Your task to perform on an android device: Search for pizza restaurants on Maps Image 0: 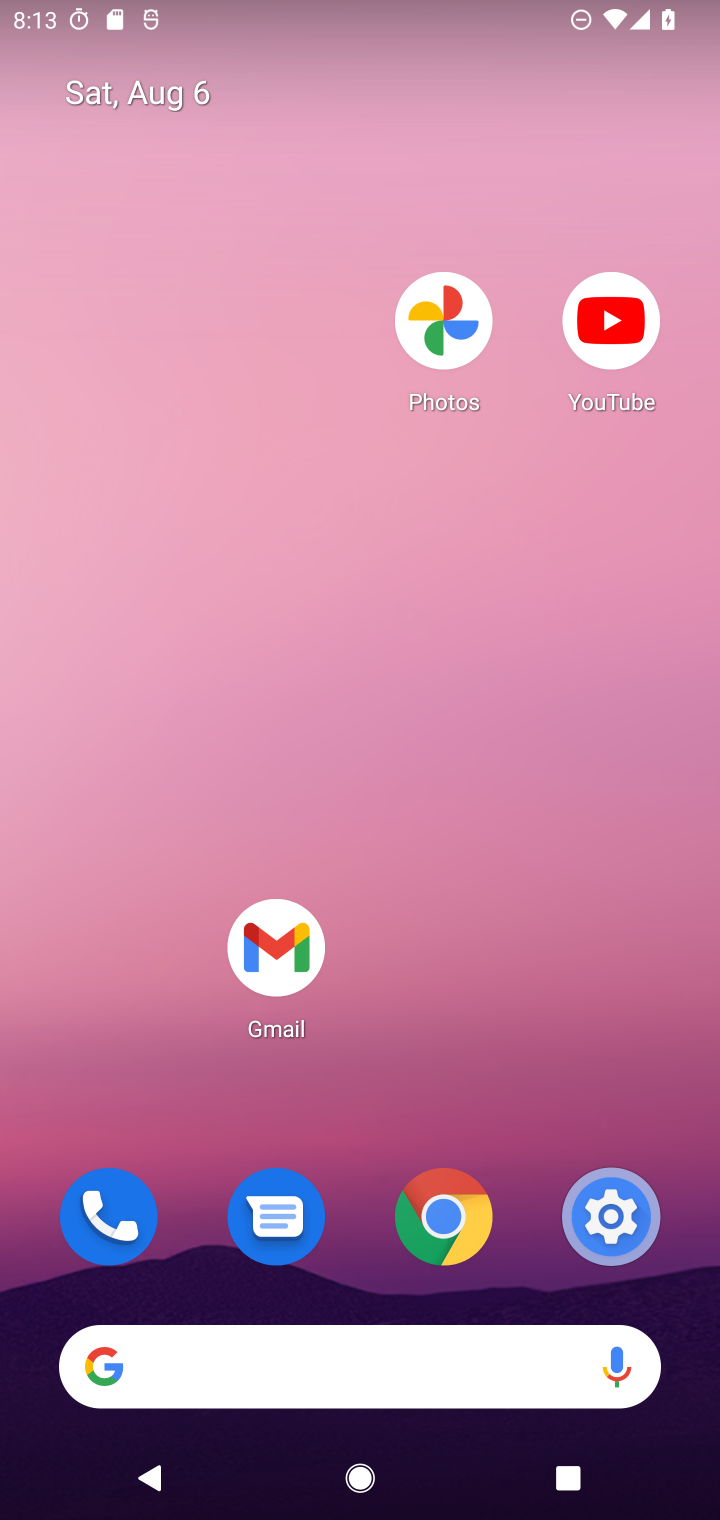
Step 0: drag from (542, 1065) to (251, 124)
Your task to perform on an android device: Search for pizza restaurants on Maps Image 1: 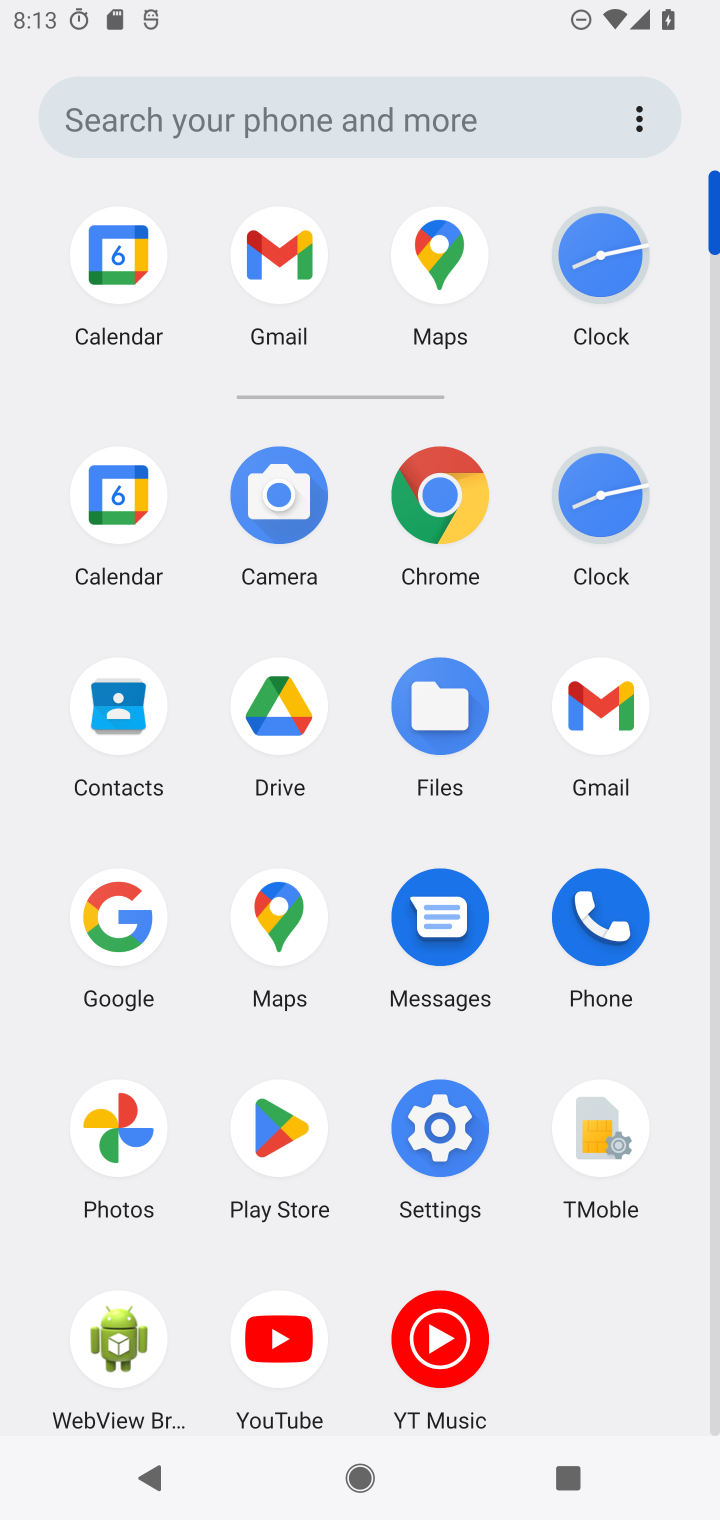
Step 1: click (278, 936)
Your task to perform on an android device: Search for pizza restaurants on Maps Image 2: 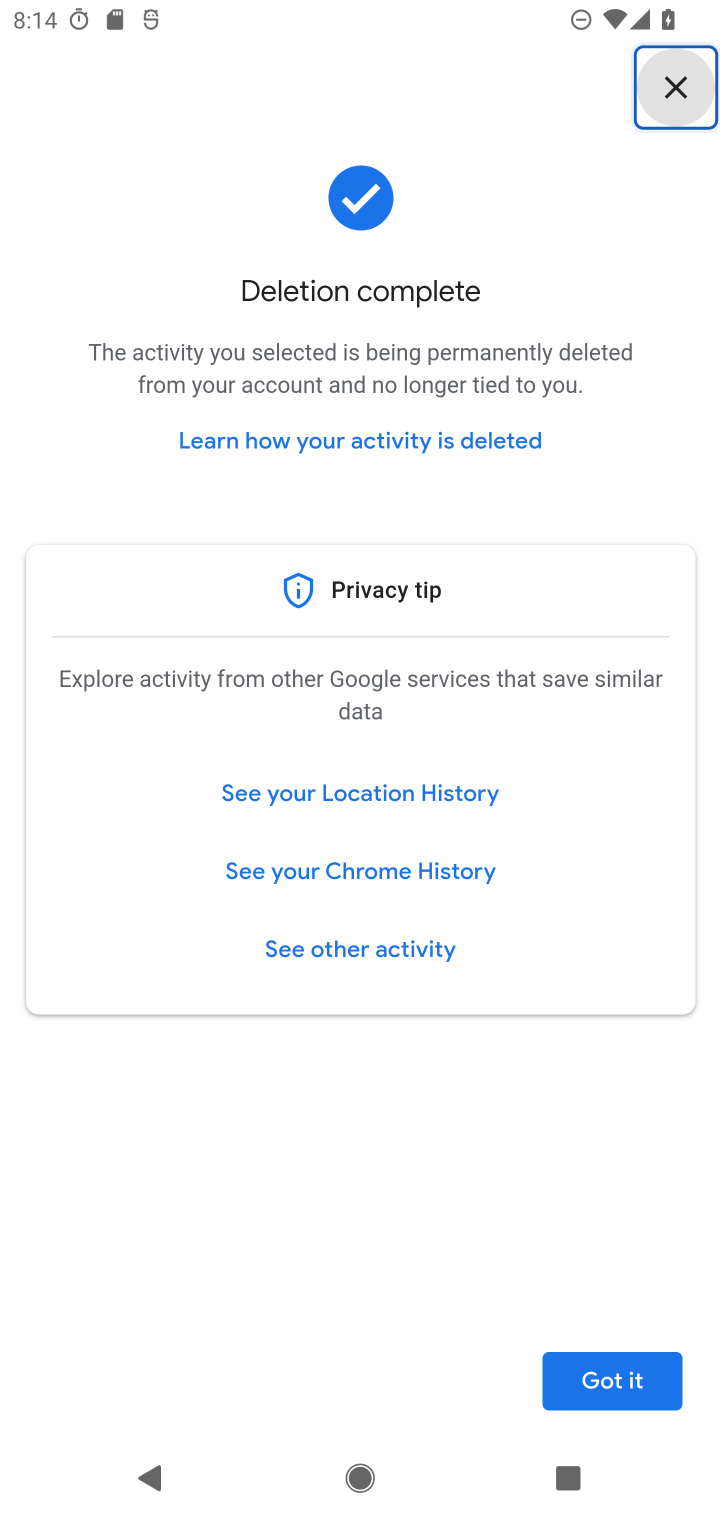
Step 2: drag from (693, 87) to (717, 1166)
Your task to perform on an android device: Search for pizza restaurants on Maps Image 3: 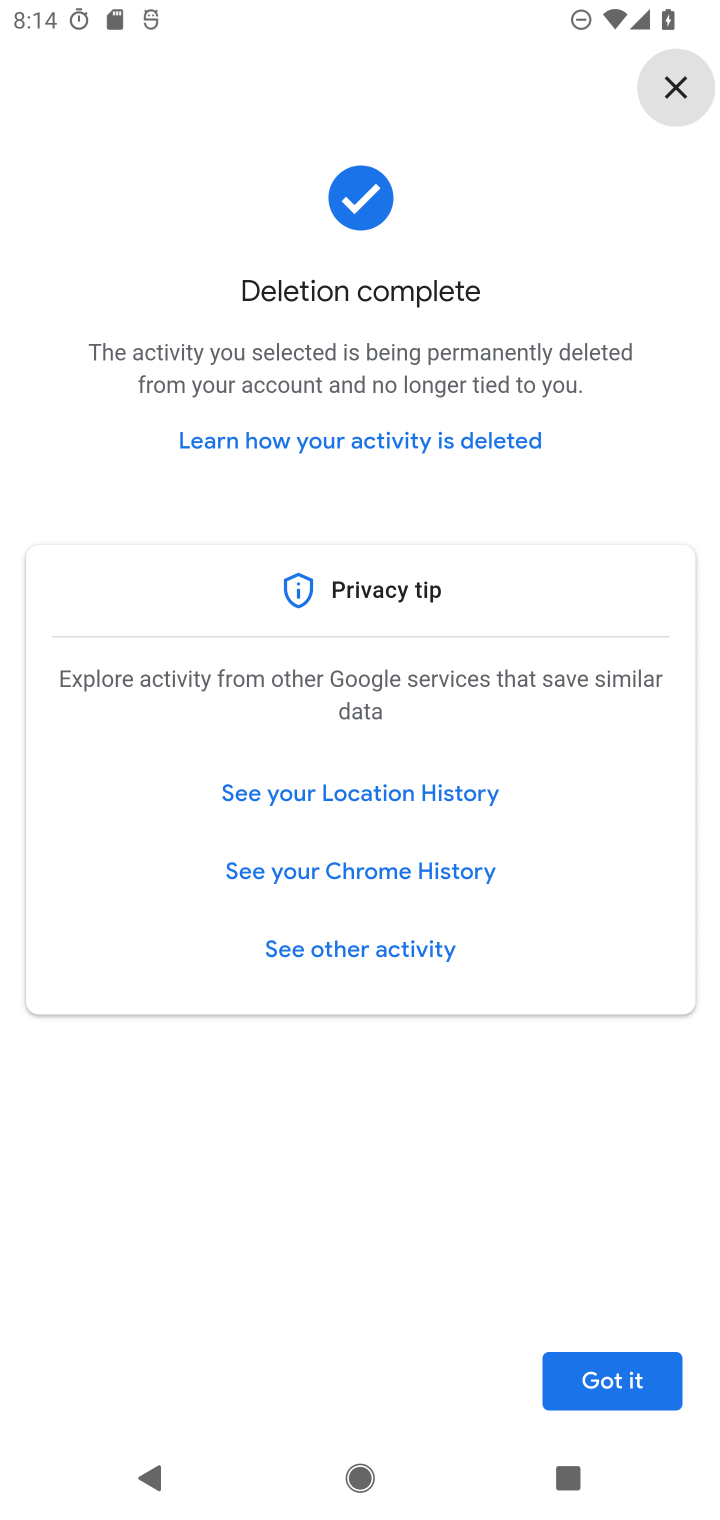
Step 3: click (619, 1406)
Your task to perform on an android device: Search for pizza restaurants on Maps Image 4: 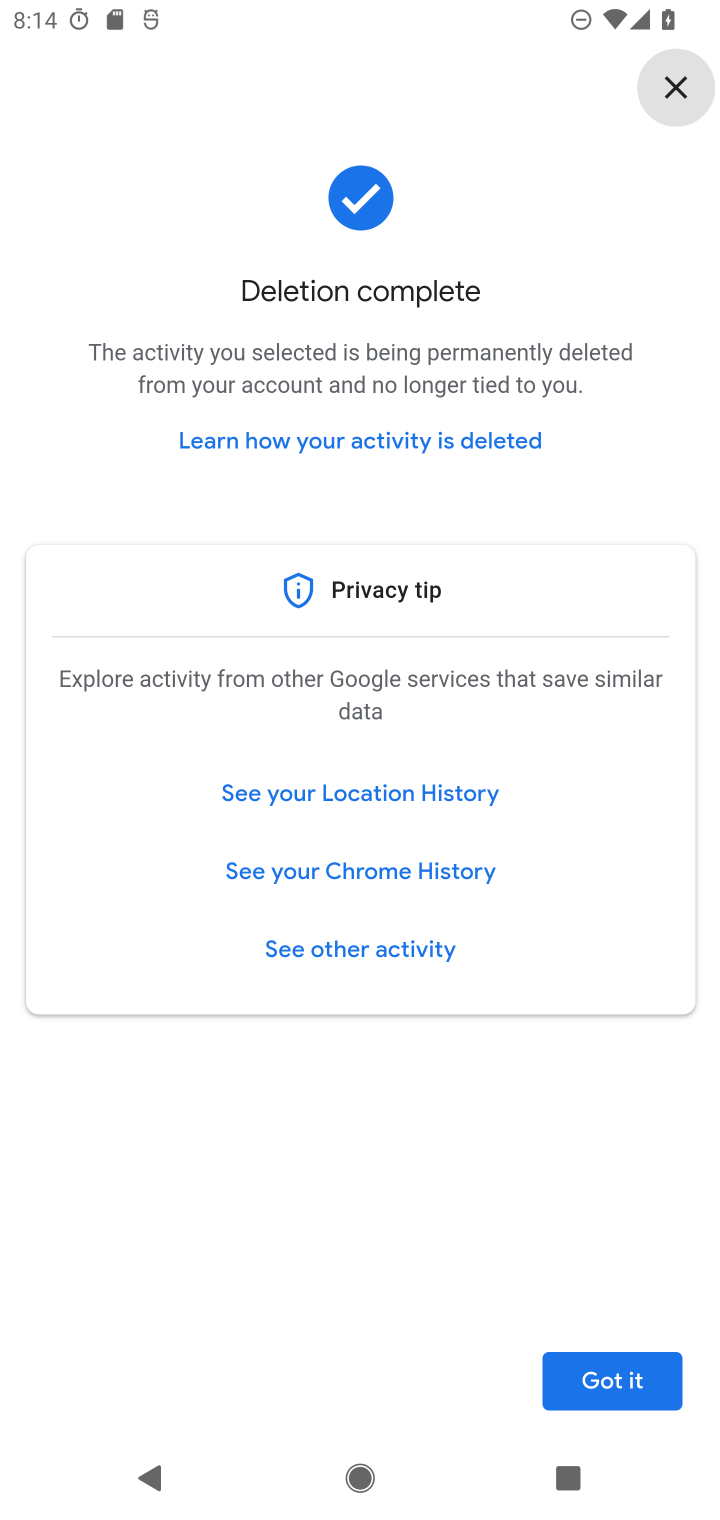
Step 4: click (619, 1396)
Your task to perform on an android device: Search for pizza restaurants on Maps Image 5: 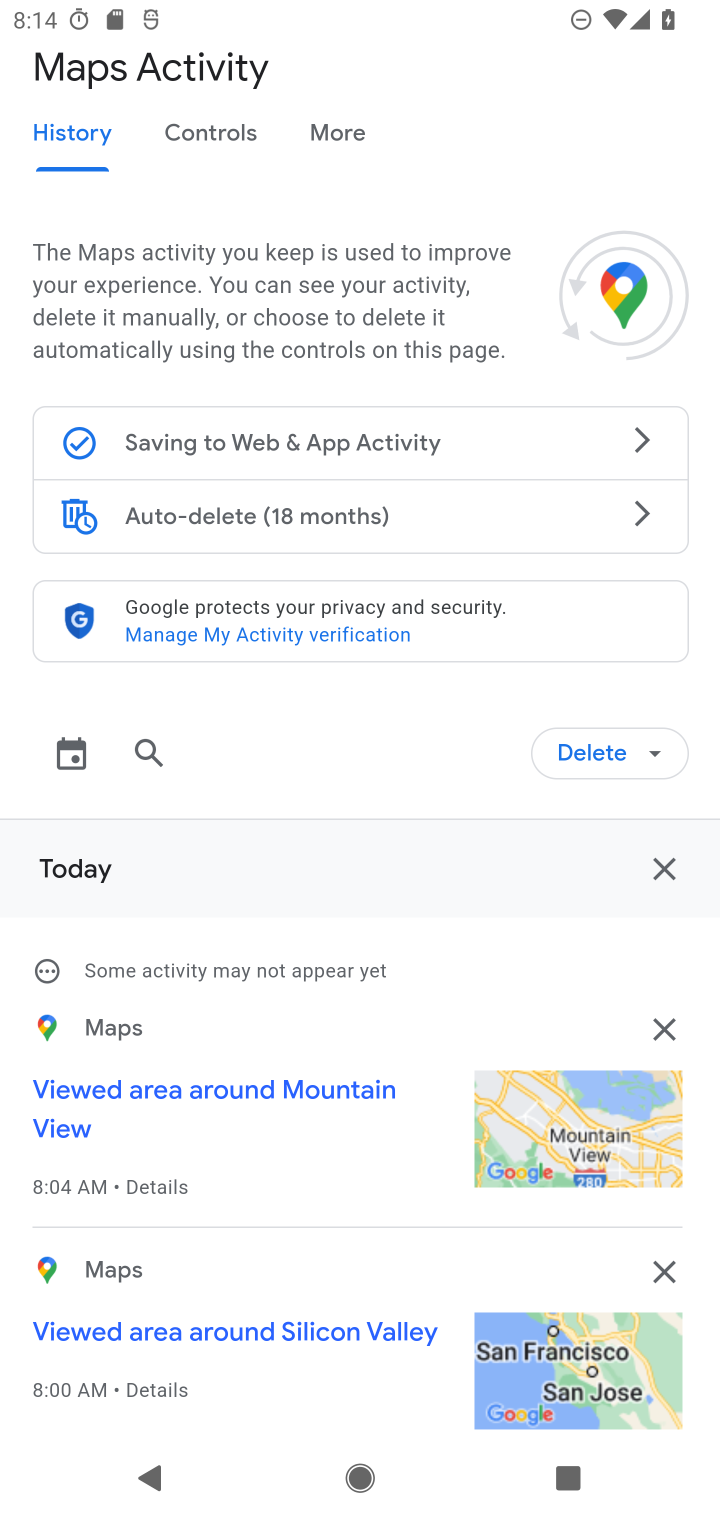
Step 5: press back button
Your task to perform on an android device: Search for pizza restaurants on Maps Image 6: 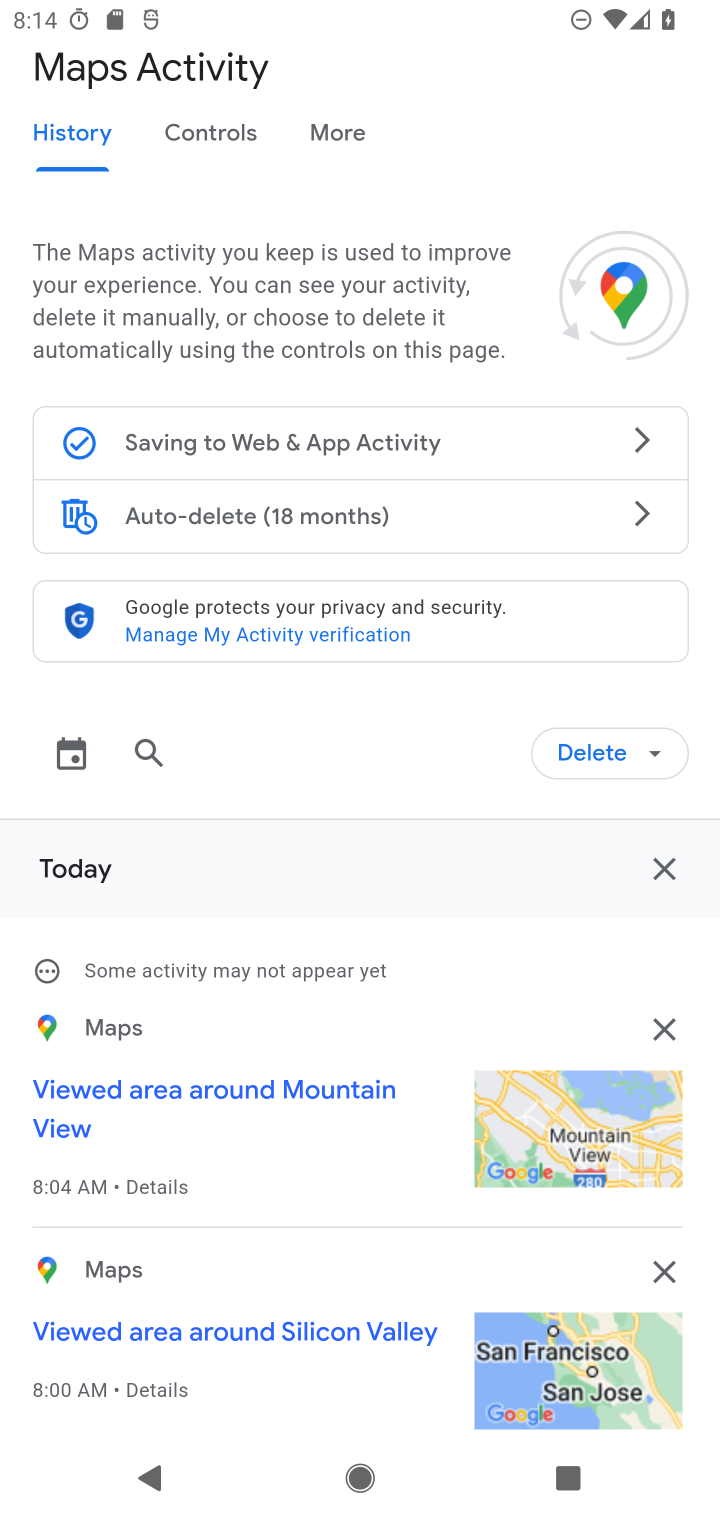
Step 6: press back button
Your task to perform on an android device: Search for pizza restaurants on Maps Image 7: 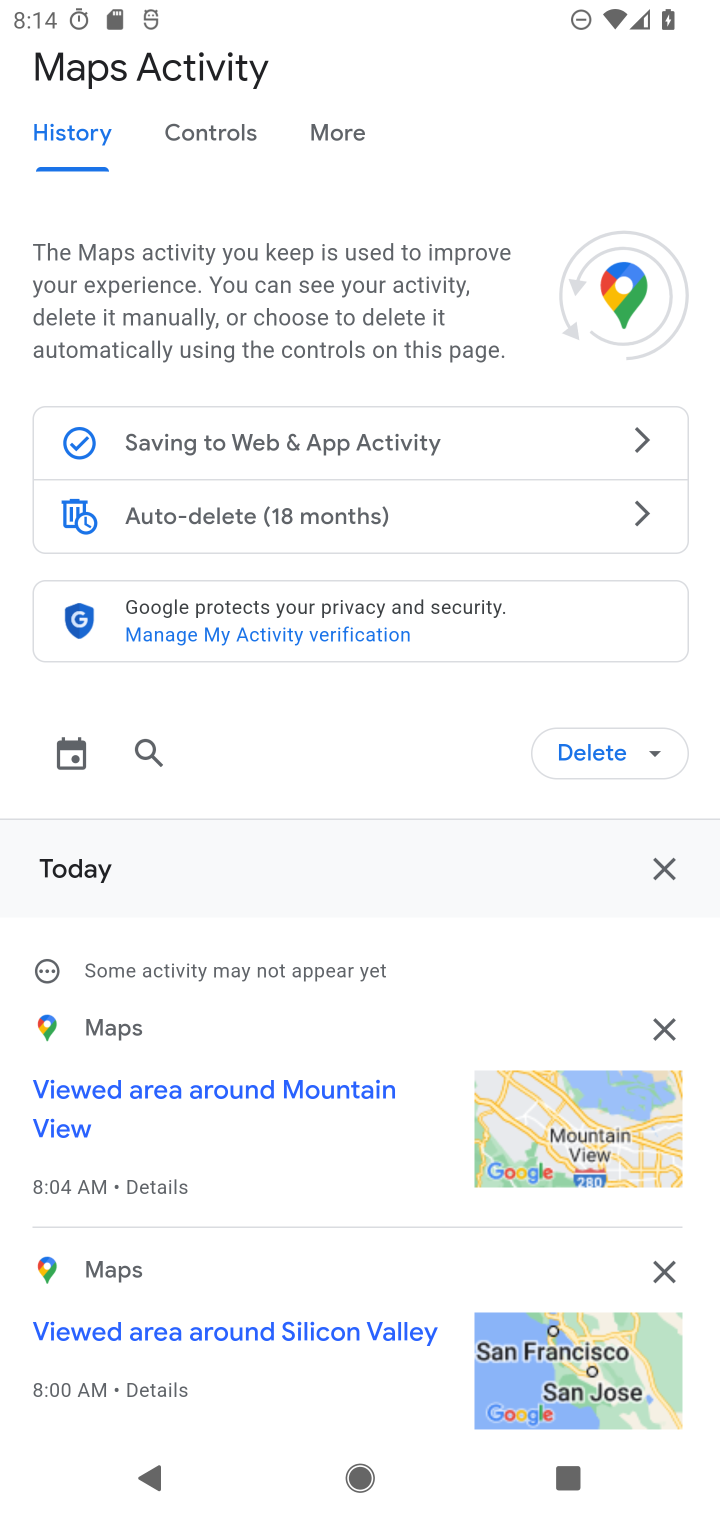
Step 7: press back button
Your task to perform on an android device: Search for pizza restaurants on Maps Image 8: 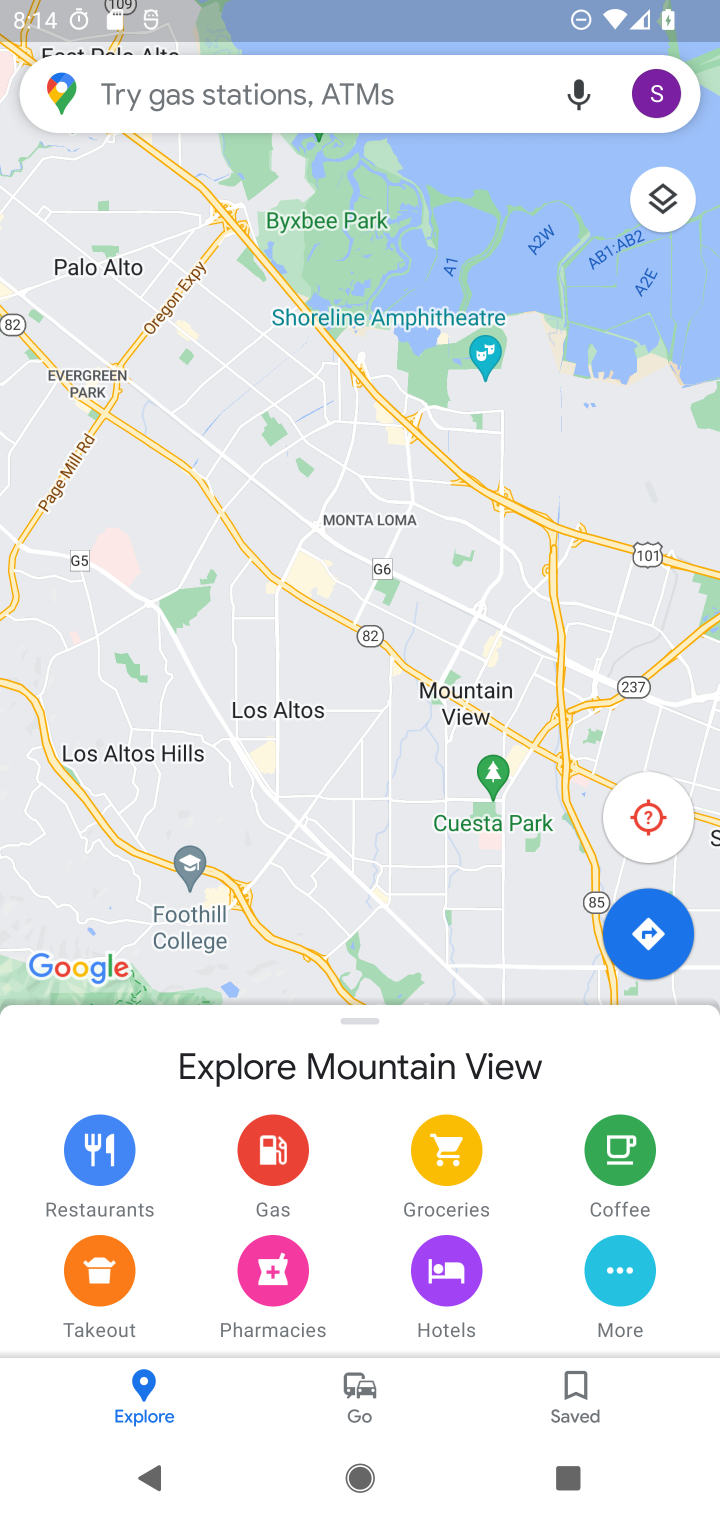
Step 8: click (301, 105)
Your task to perform on an android device: Search for pizza restaurants on Maps Image 9: 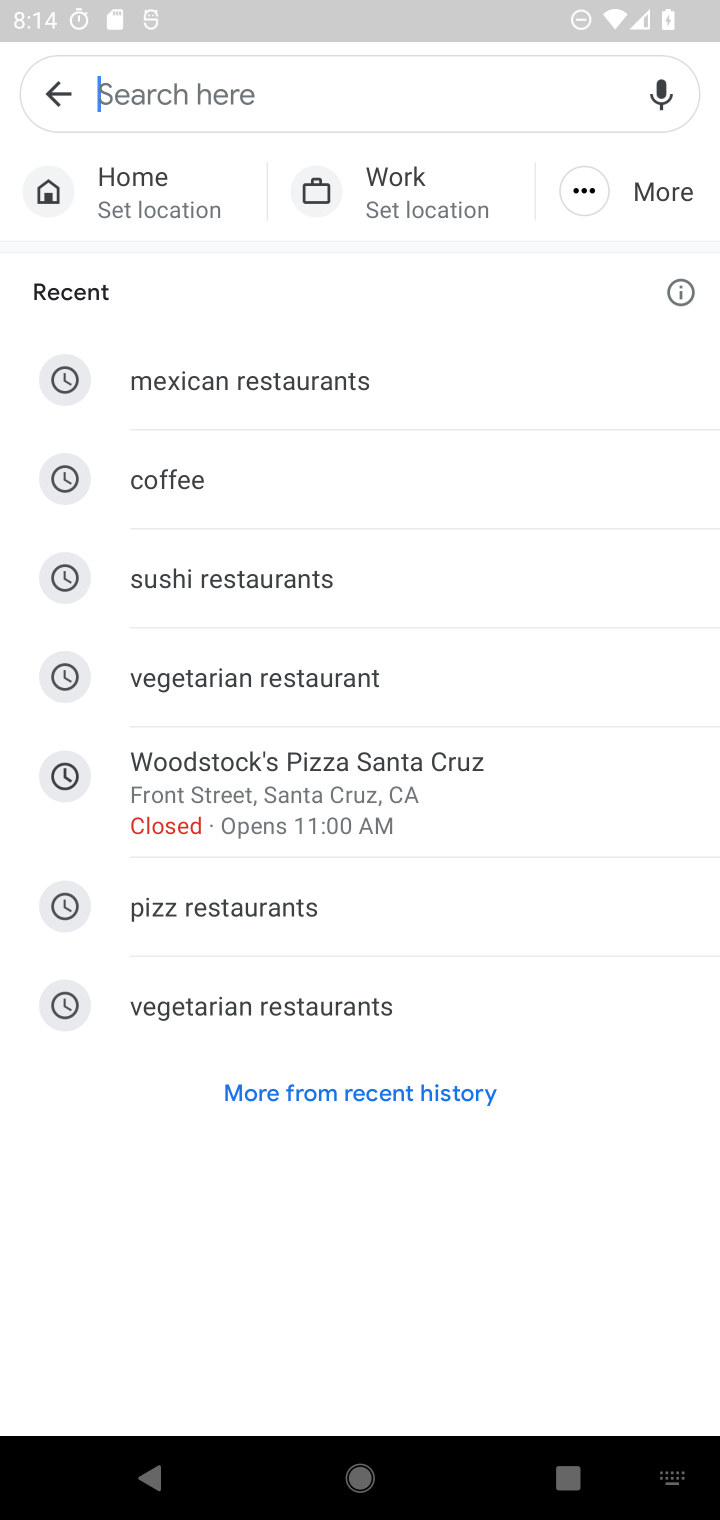
Step 9: type "pizza restaurants"
Your task to perform on an android device: Search for pizza restaurants on Maps Image 10: 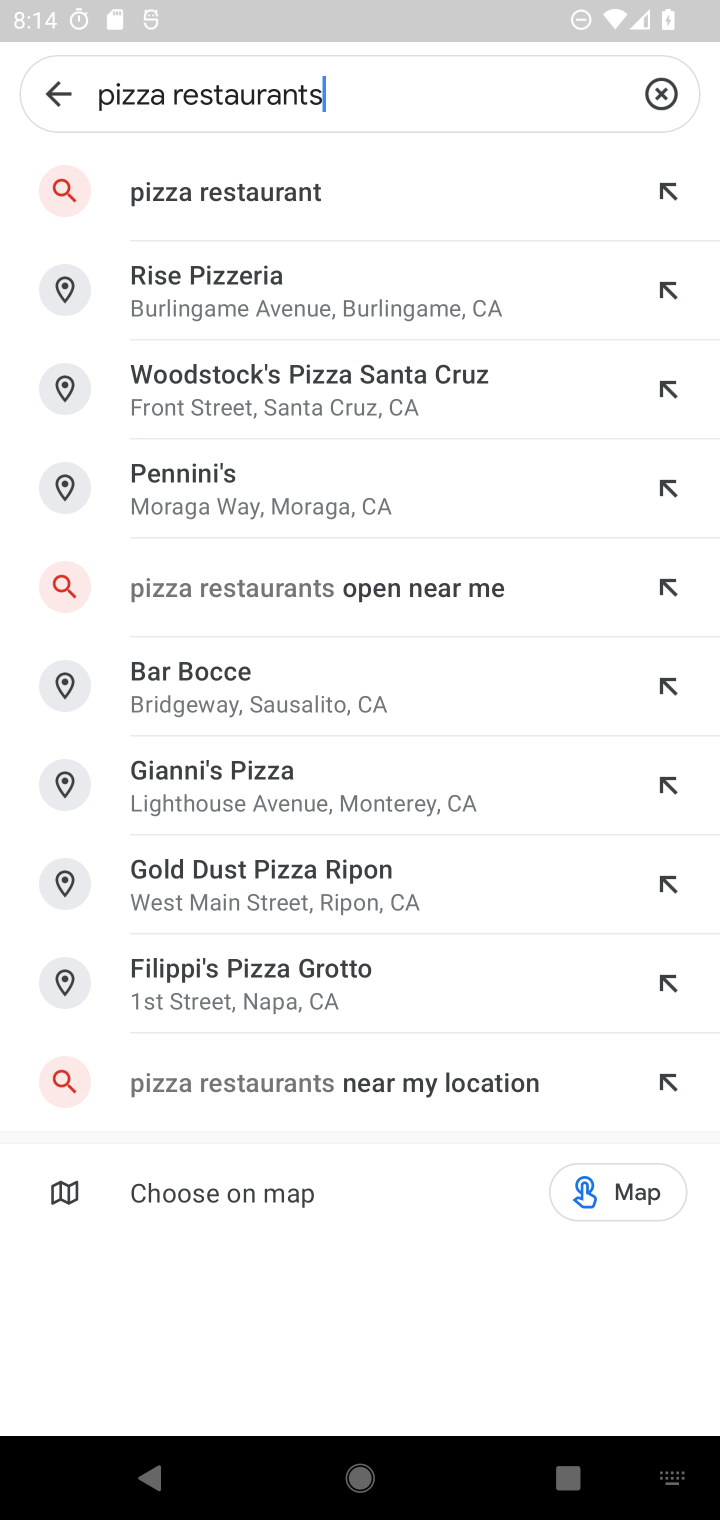
Step 10: press enter
Your task to perform on an android device: Search for pizza restaurants on Maps Image 11: 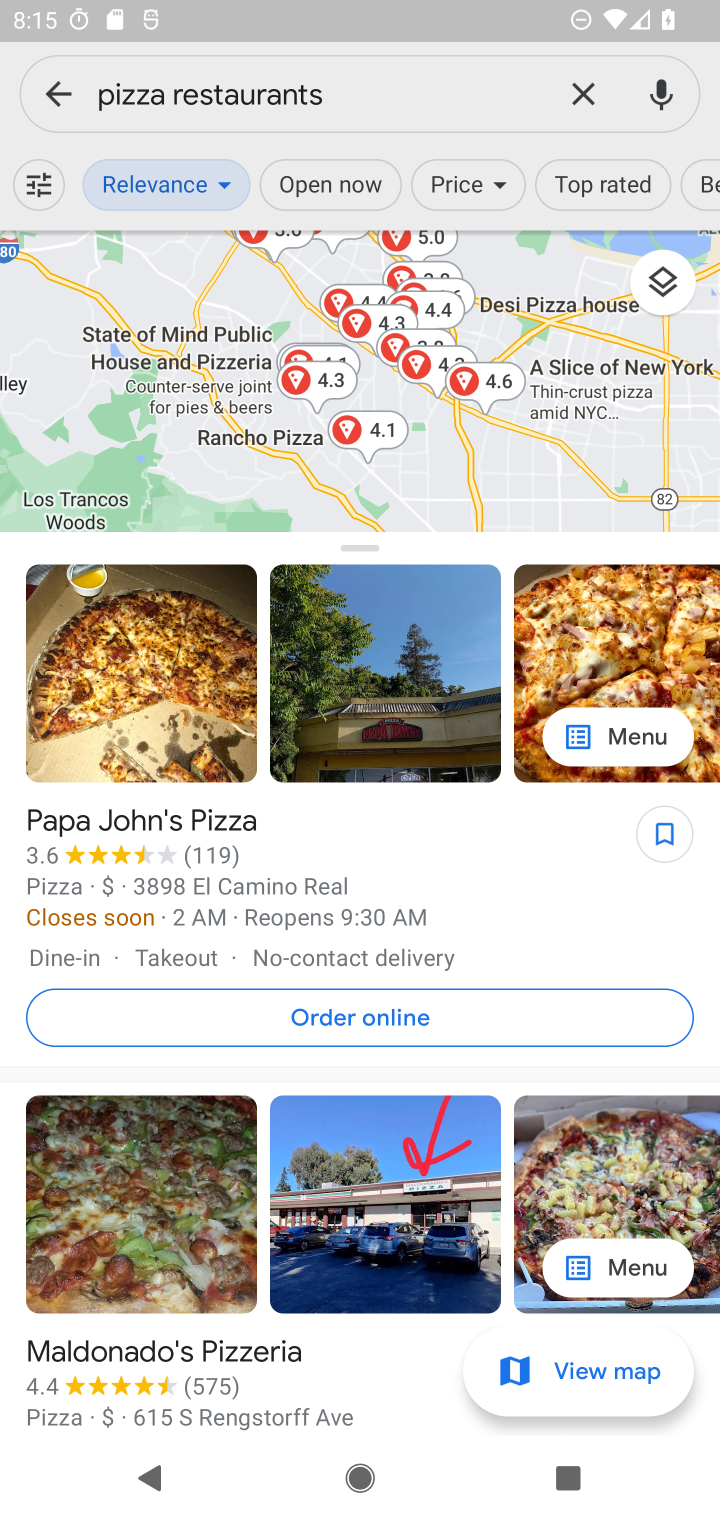
Step 11: task complete